Your task to perform on an android device: turn on wifi Image 0: 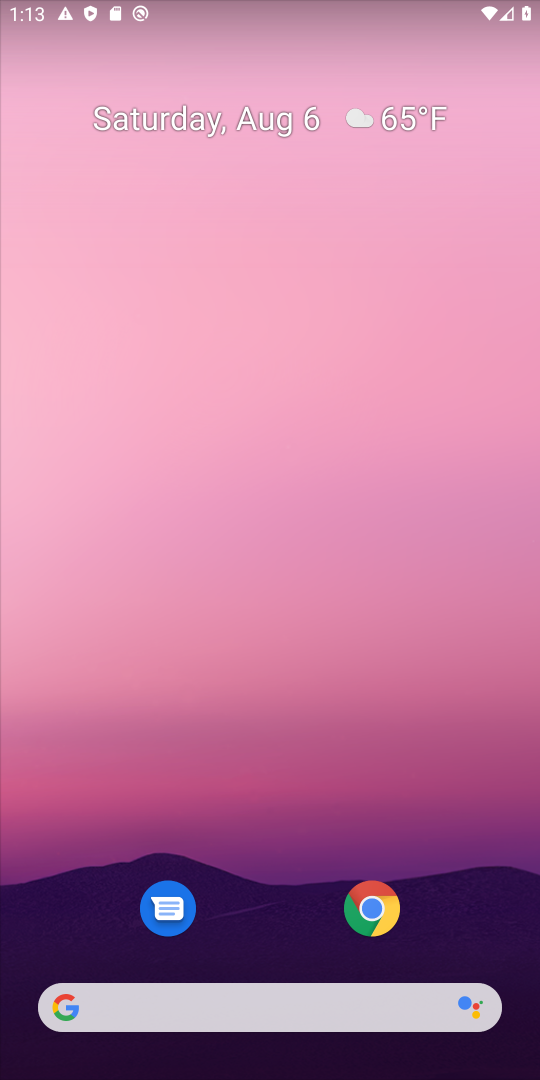
Step 0: drag from (274, 863) to (302, 402)
Your task to perform on an android device: turn on wifi Image 1: 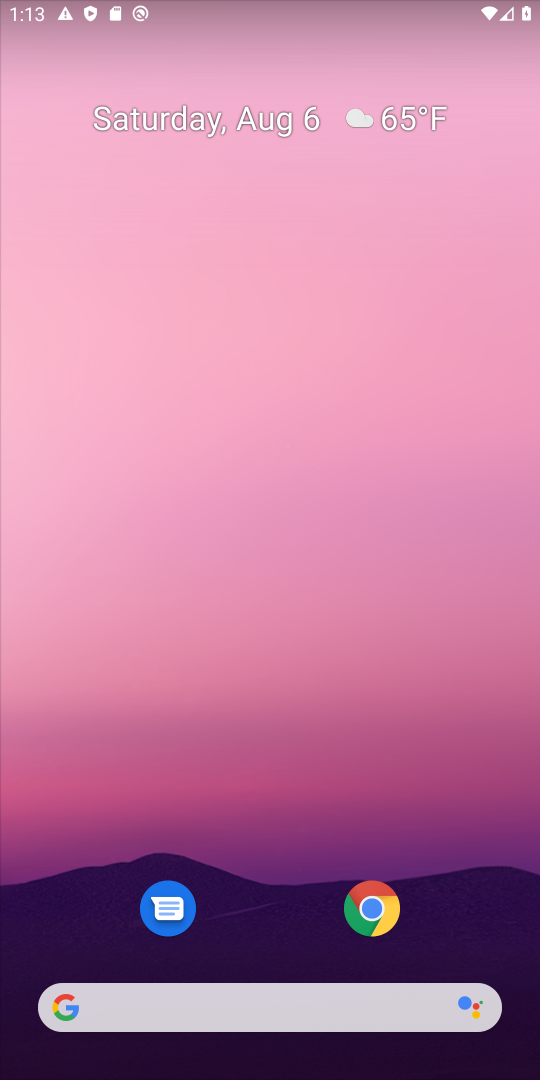
Step 1: drag from (248, 788) to (238, 111)
Your task to perform on an android device: turn on wifi Image 2: 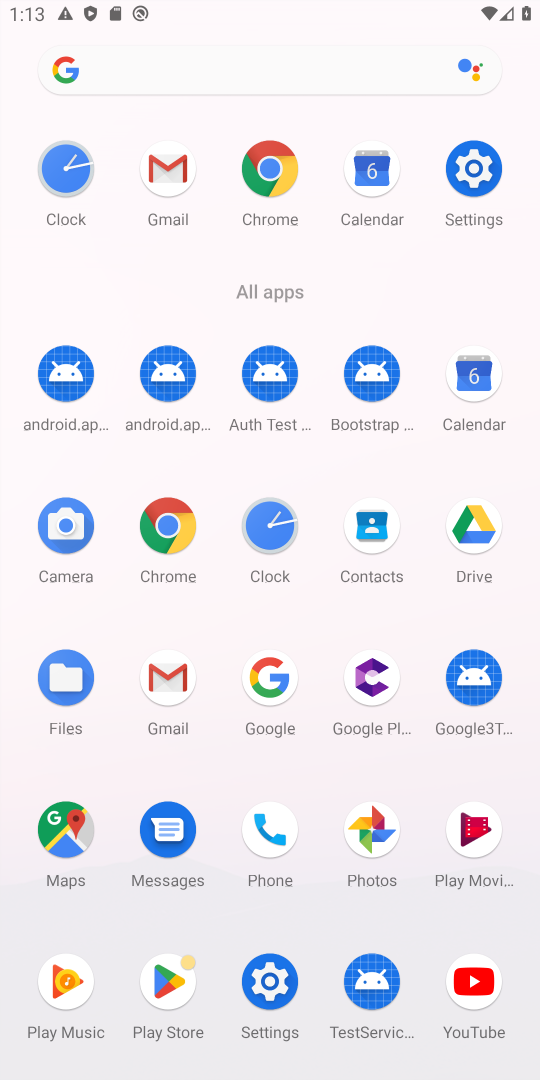
Step 2: click (482, 160)
Your task to perform on an android device: turn on wifi Image 3: 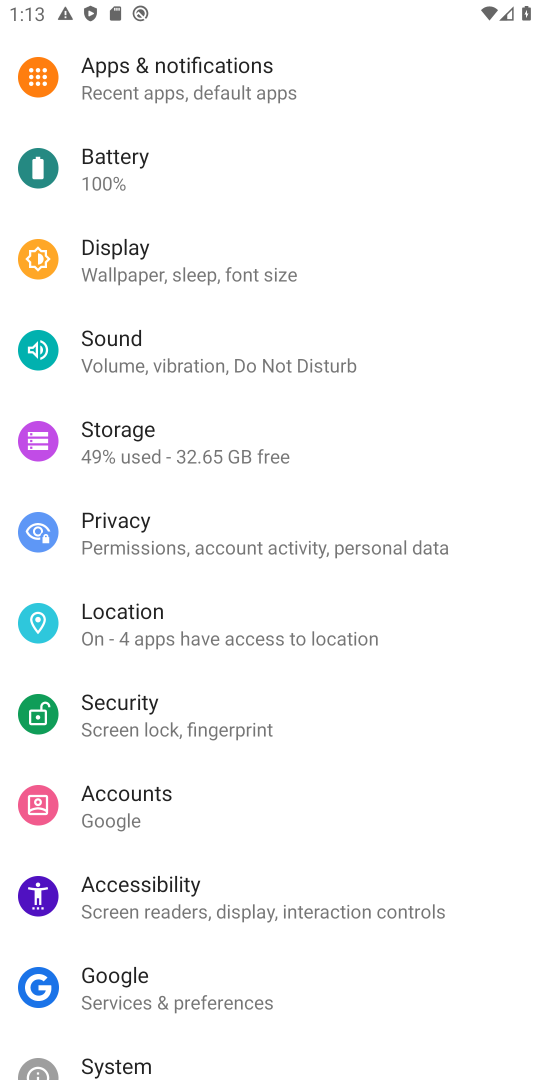
Step 3: drag from (289, 159) to (317, 466)
Your task to perform on an android device: turn on wifi Image 4: 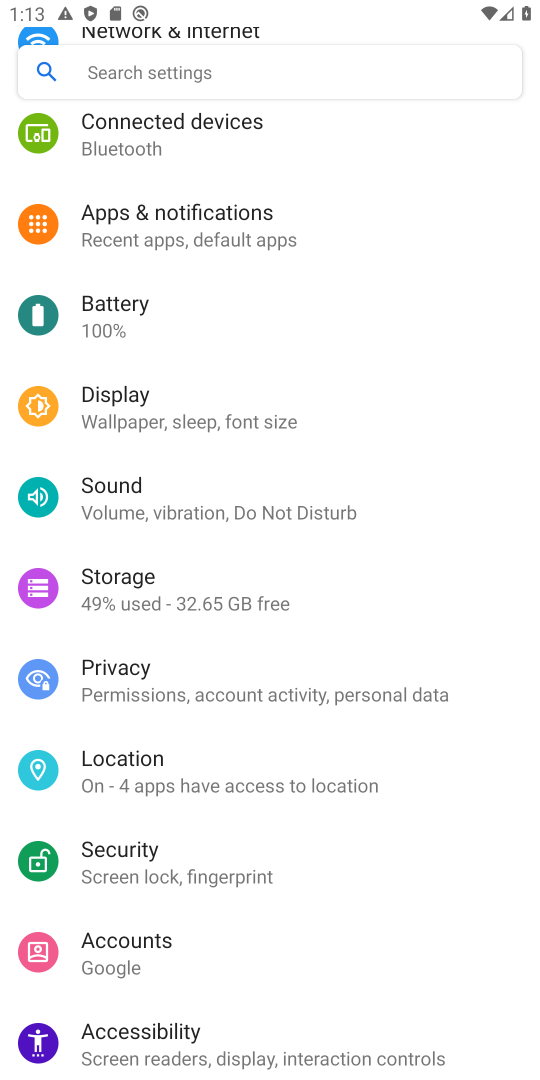
Step 4: drag from (338, 128) to (375, 672)
Your task to perform on an android device: turn on wifi Image 5: 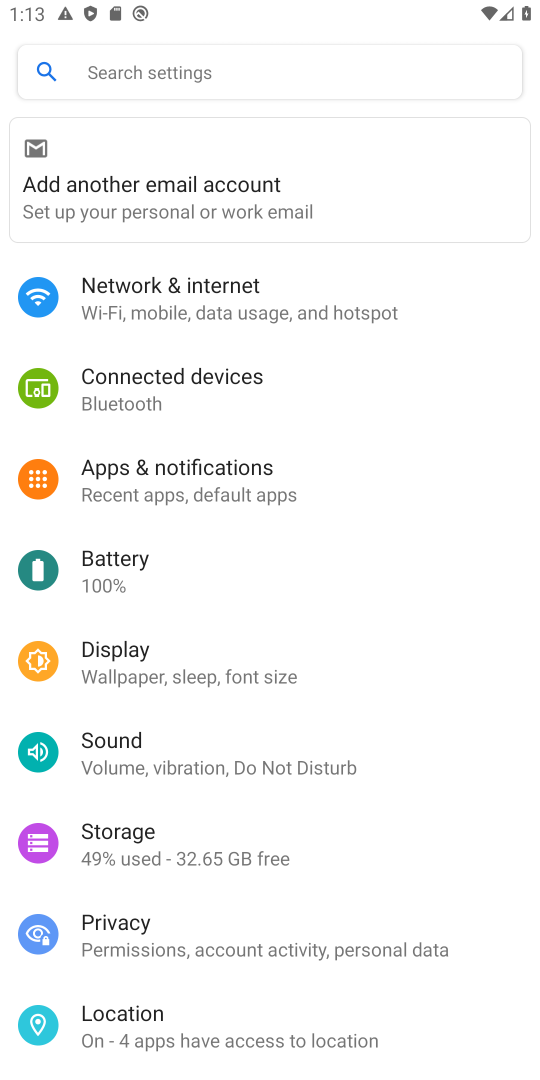
Step 5: click (424, 291)
Your task to perform on an android device: turn on wifi Image 6: 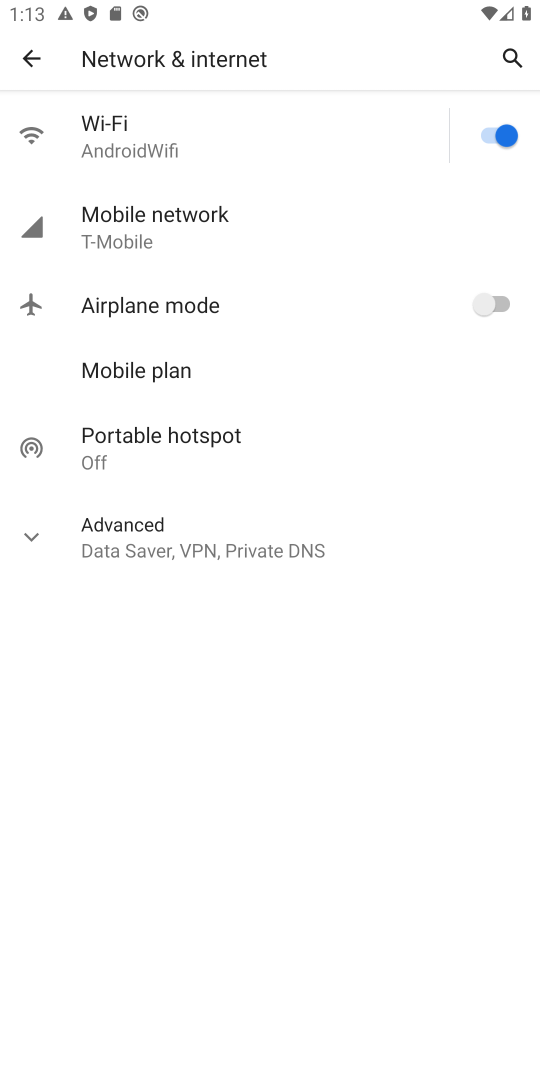
Step 6: task complete